Your task to perform on an android device: Open Wikipedia Image 0: 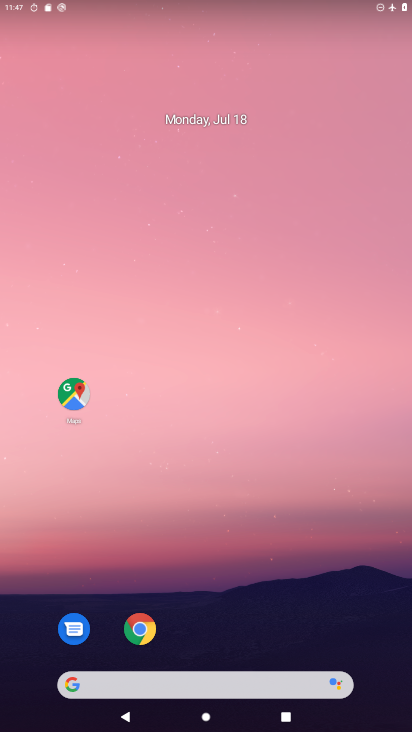
Step 0: drag from (296, 593) to (169, 67)
Your task to perform on an android device: Open Wikipedia Image 1: 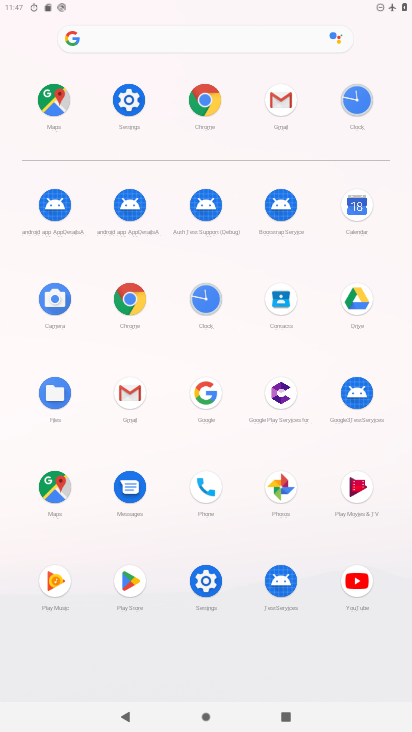
Step 1: click (202, 93)
Your task to perform on an android device: Open Wikipedia Image 2: 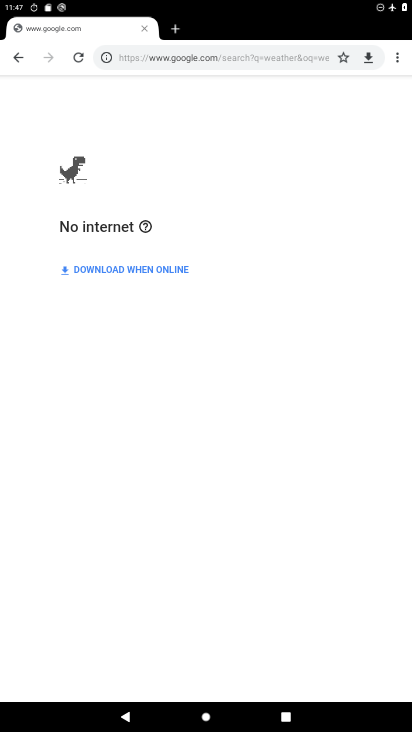
Step 2: click (187, 57)
Your task to perform on an android device: Open Wikipedia Image 3: 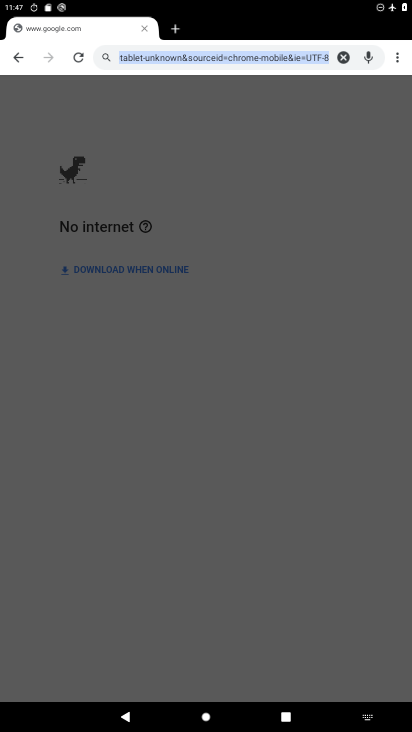
Step 3: type "wikipedia"
Your task to perform on an android device: Open Wikipedia Image 4: 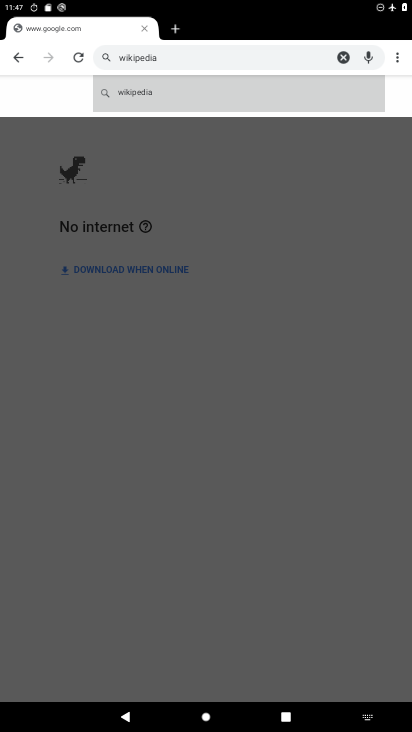
Step 4: click (137, 92)
Your task to perform on an android device: Open Wikipedia Image 5: 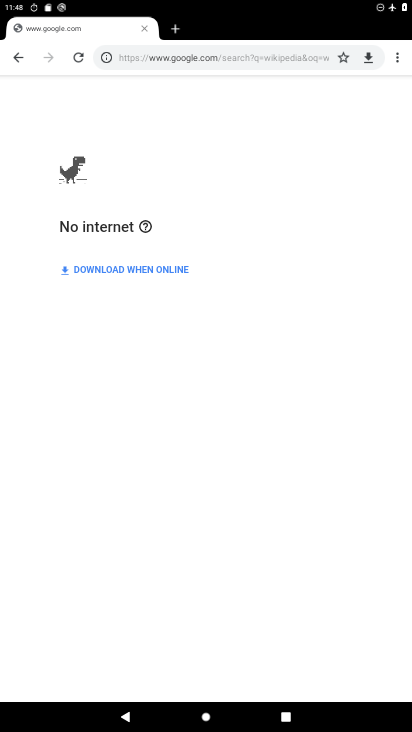
Step 5: task complete